Your task to perform on an android device: toggle translation in the chrome app Image 0: 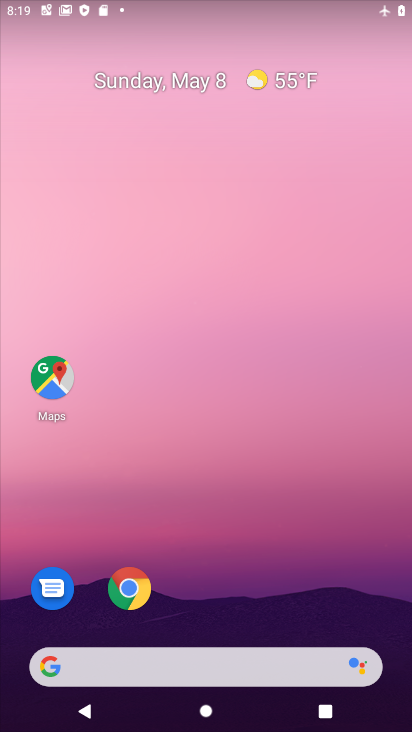
Step 0: drag from (343, 620) to (213, 17)
Your task to perform on an android device: toggle translation in the chrome app Image 1: 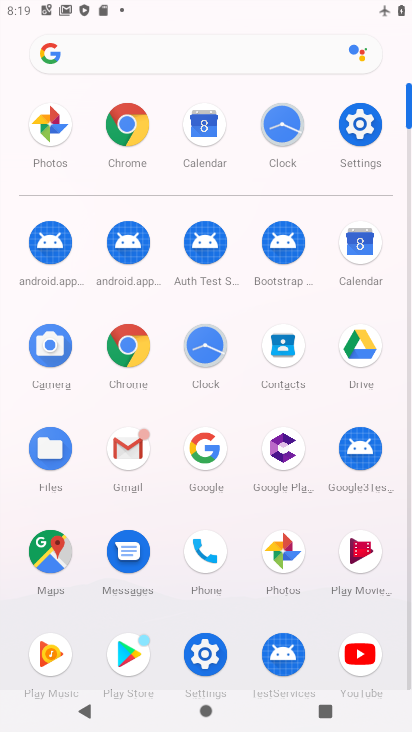
Step 1: click (118, 130)
Your task to perform on an android device: toggle translation in the chrome app Image 2: 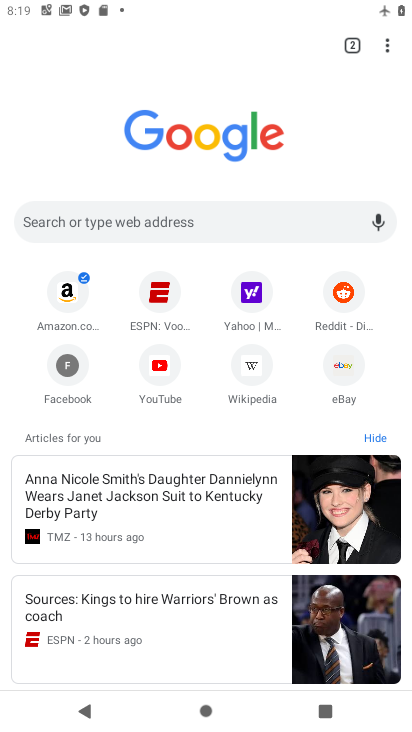
Step 2: click (390, 43)
Your task to perform on an android device: toggle translation in the chrome app Image 3: 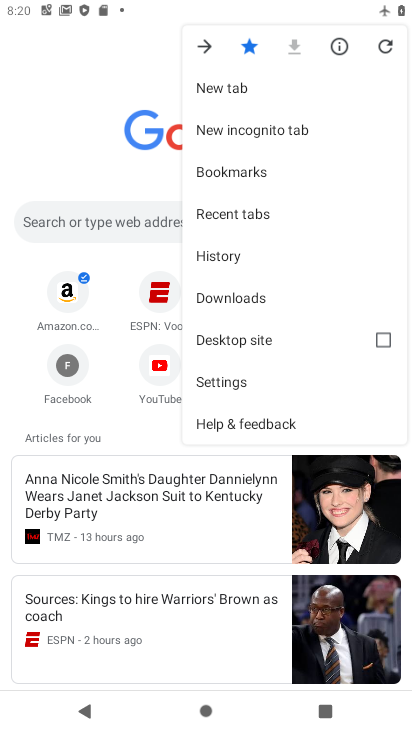
Step 3: click (238, 386)
Your task to perform on an android device: toggle translation in the chrome app Image 4: 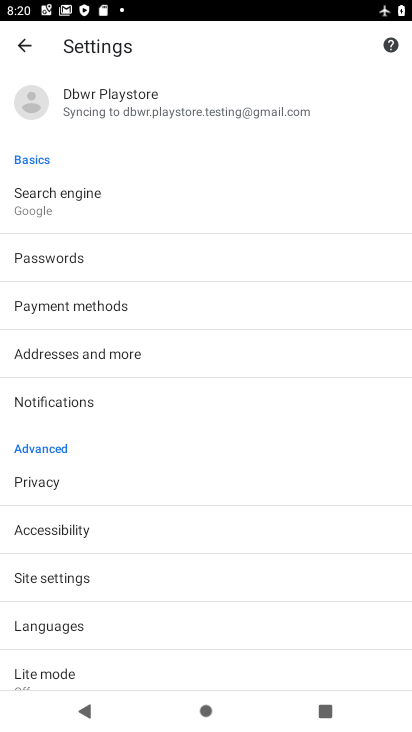
Step 4: click (105, 624)
Your task to perform on an android device: toggle translation in the chrome app Image 5: 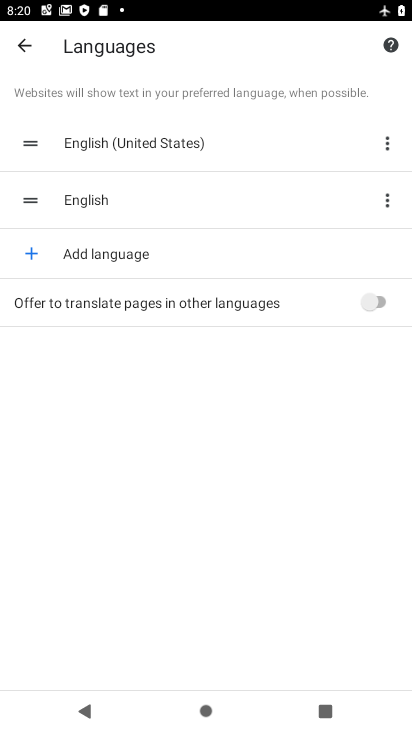
Step 5: click (351, 311)
Your task to perform on an android device: toggle translation in the chrome app Image 6: 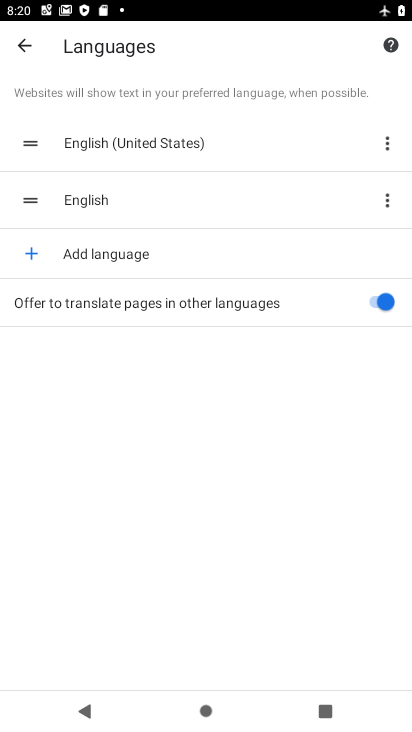
Step 6: task complete